Your task to perform on an android device: Go to Yahoo.com Image 0: 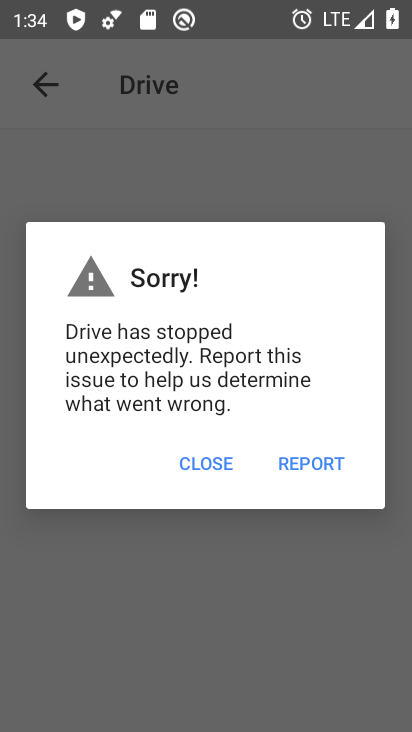
Step 0: press home button
Your task to perform on an android device: Go to Yahoo.com Image 1: 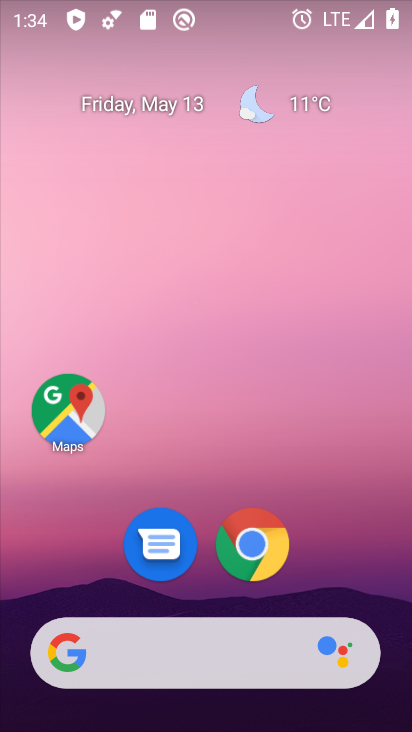
Step 1: click (257, 540)
Your task to perform on an android device: Go to Yahoo.com Image 2: 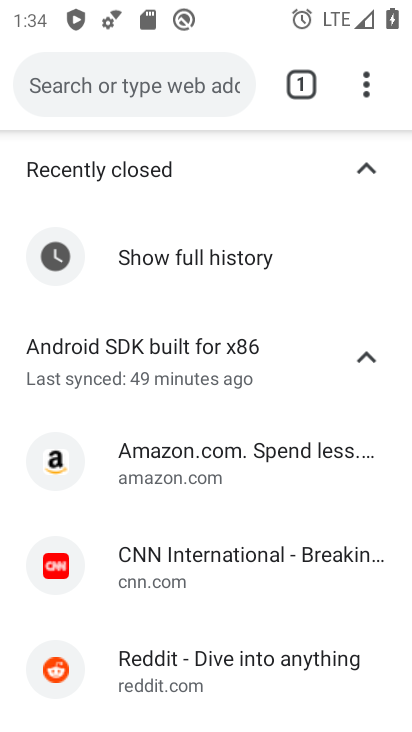
Step 2: click (195, 88)
Your task to perform on an android device: Go to Yahoo.com Image 3: 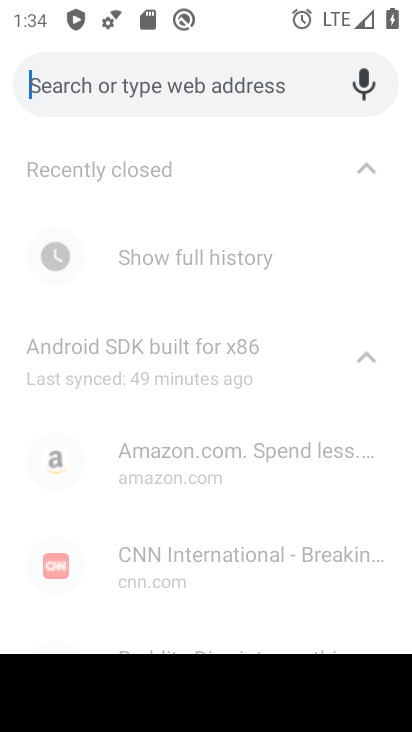
Step 3: type "yahoo.com"
Your task to perform on an android device: Go to Yahoo.com Image 4: 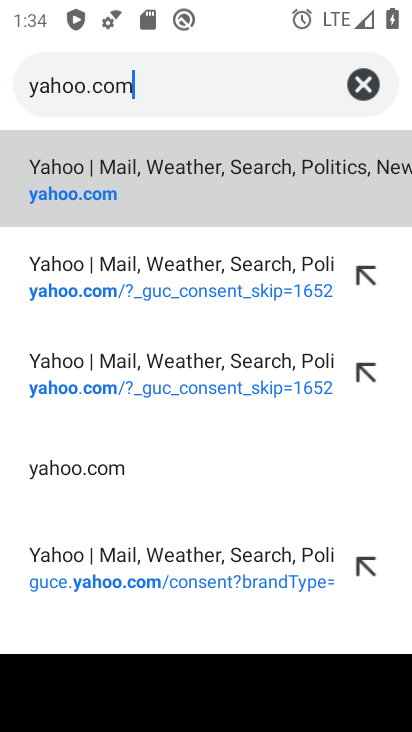
Step 4: click (132, 199)
Your task to perform on an android device: Go to Yahoo.com Image 5: 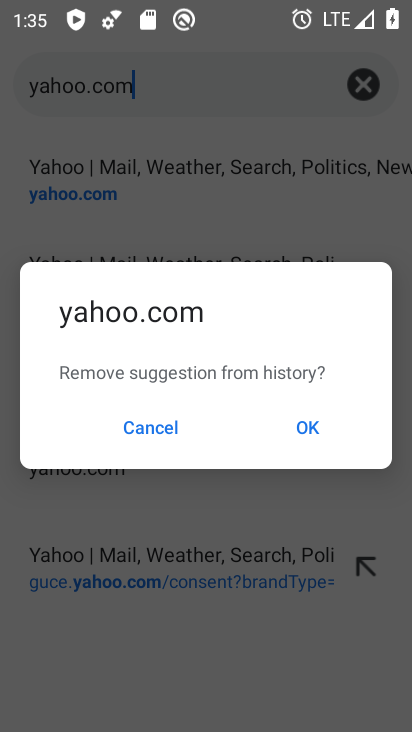
Step 5: click (172, 433)
Your task to perform on an android device: Go to Yahoo.com Image 6: 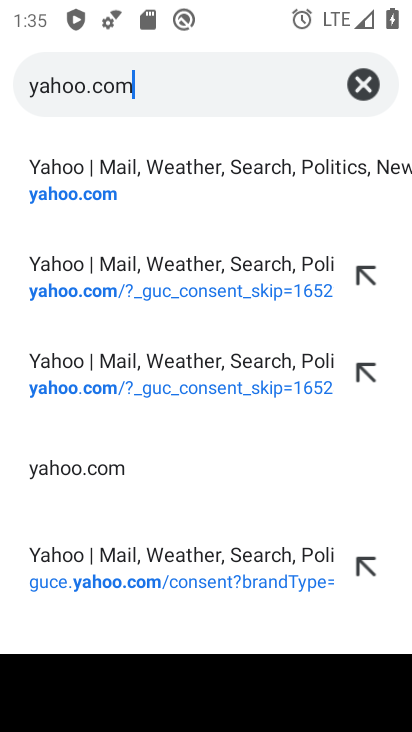
Step 6: click (106, 194)
Your task to perform on an android device: Go to Yahoo.com Image 7: 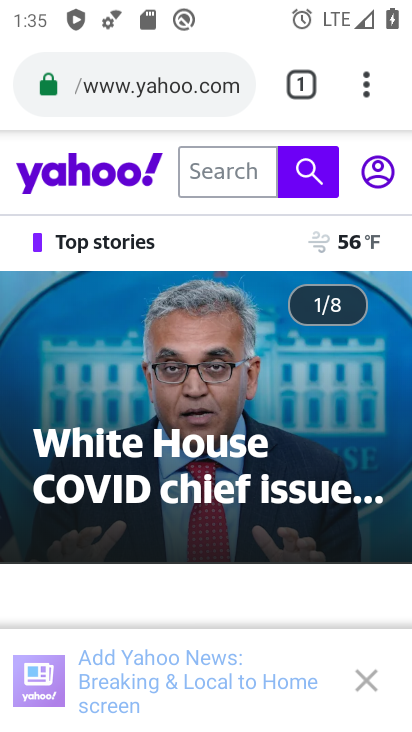
Step 7: task complete